Your task to perform on an android device: Play the last video I watched on Youtube Image 0: 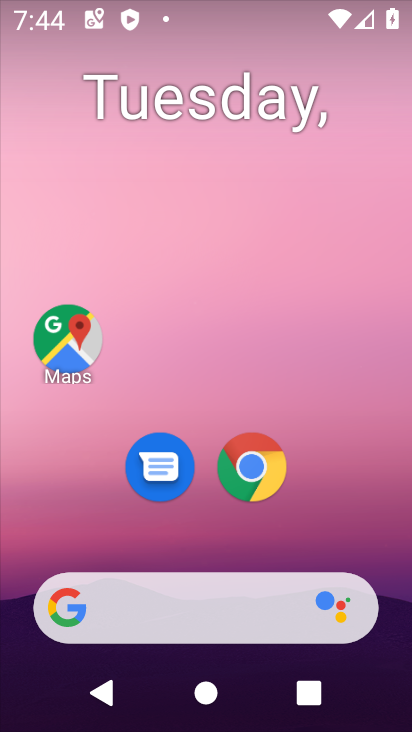
Step 0: drag from (395, 561) to (337, 217)
Your task to perform on an android device: Play the last video I watched on Youtube Image 1: 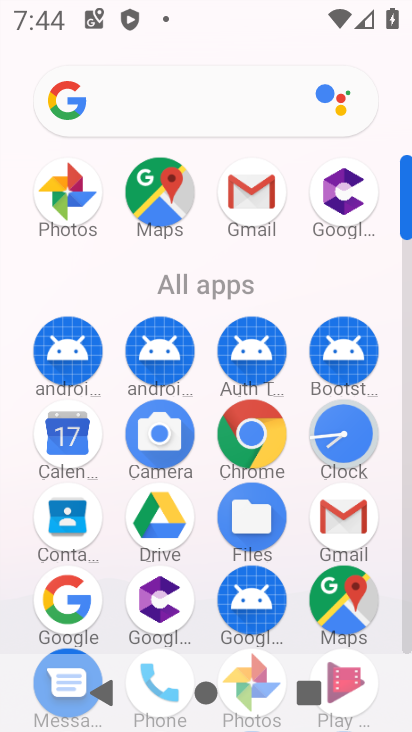
Step 1: click (405, 632)
Your task to perform on an android device: Play the last video I watched on Youtube Image 2: 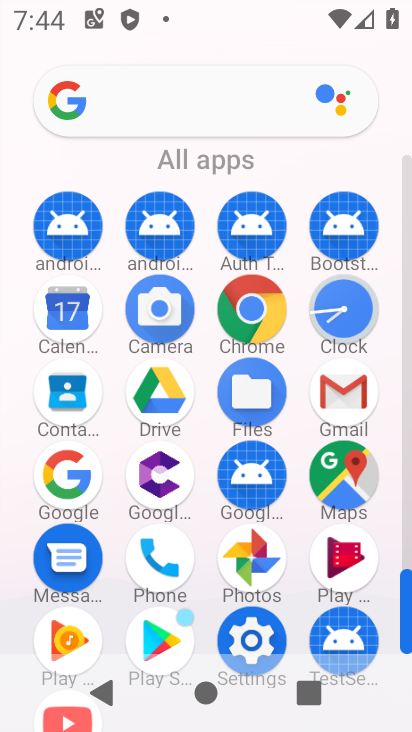
Step 2: drag from (391, 541) to (376, 351)
Your task to perform on an android device: Play the last video I watched on Youtube Image 3: 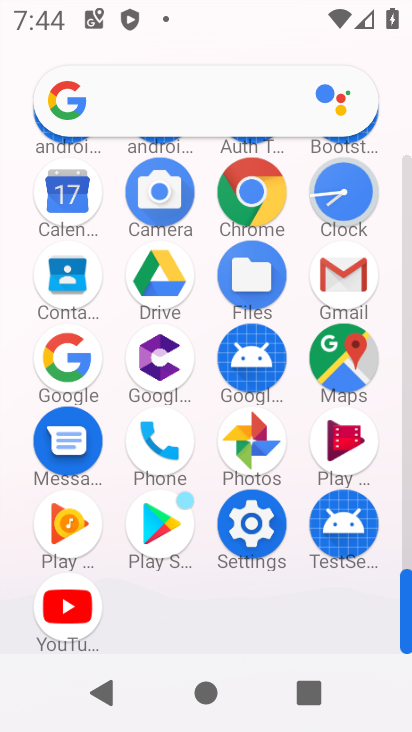
Step 3: click (88, 602)
Your task to perform on an android device: Play the last video I watched on Youtube Image 4: 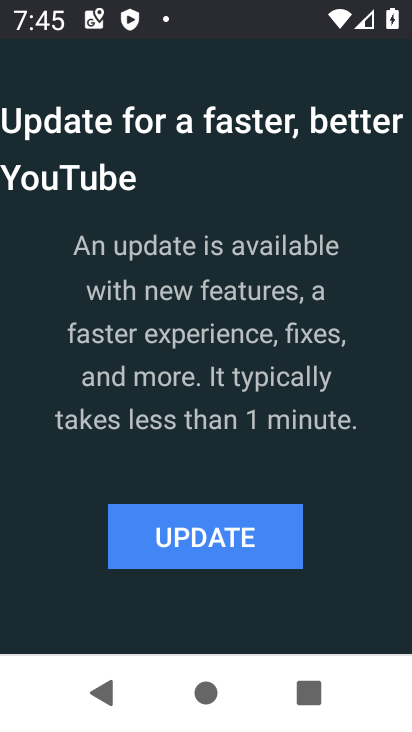
Step 4: press back button
Your task to perform on an android device: Play the last video I watched on Youtube Image 5: 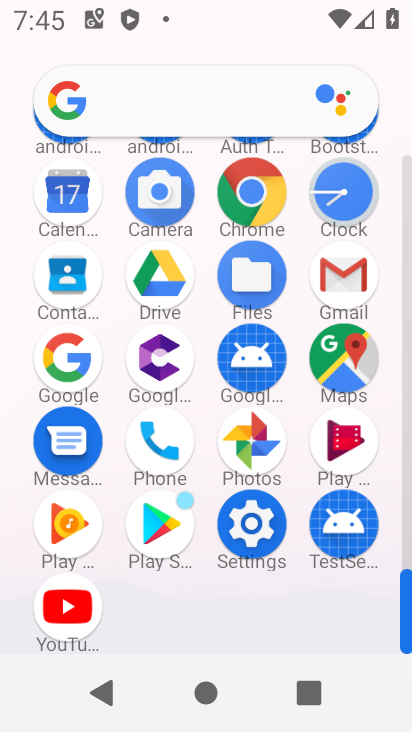
Step 5: click (84, 609)
Your task to perform on an android device: Play the last video I watched on Youtube Image 6: 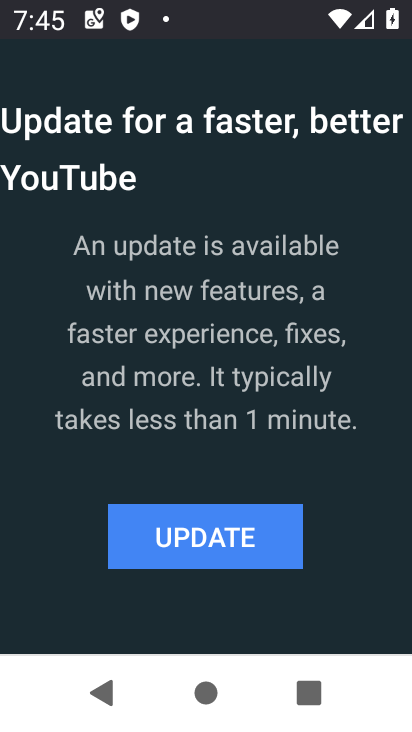
Step 6: click (239, 533)
Your task to perform on an android device: Play the last video I watched on Youtube Image 7: 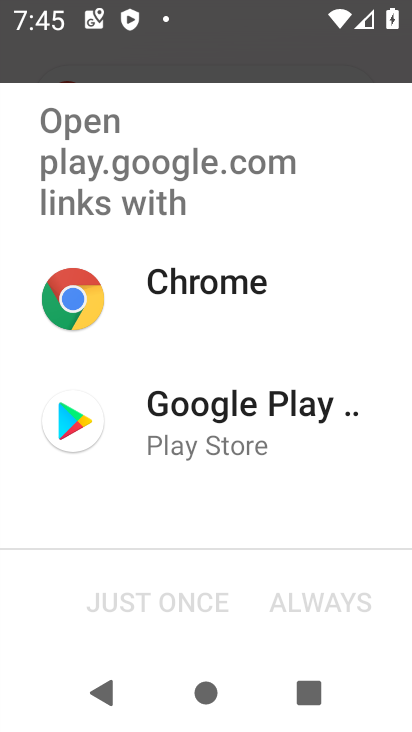
Step 7: click (251, 443)
Your task to perform on an android device: Play the last video I watched on Youtube Image 8: 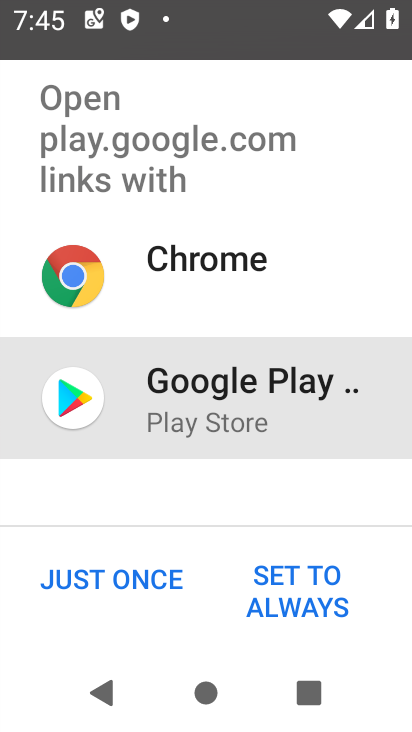
Step 8: click (141, 567)
Your task to perform on an android device: Play the last video I watched on Youtube Image 9: 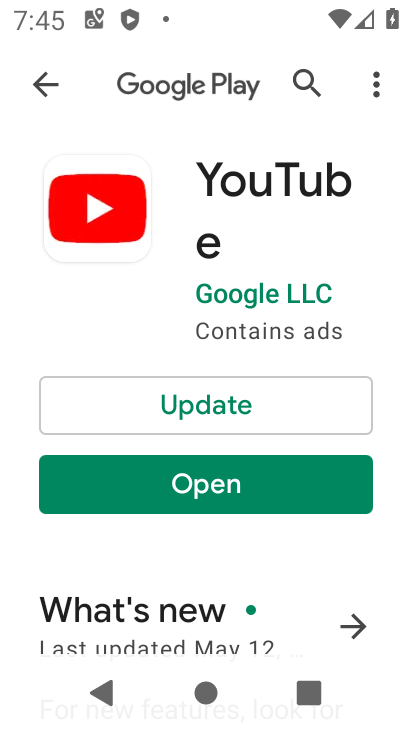
Step 9: click (249, 401)
Your task to perform on an android device: Play the last video I watched on Youtube Image 10: 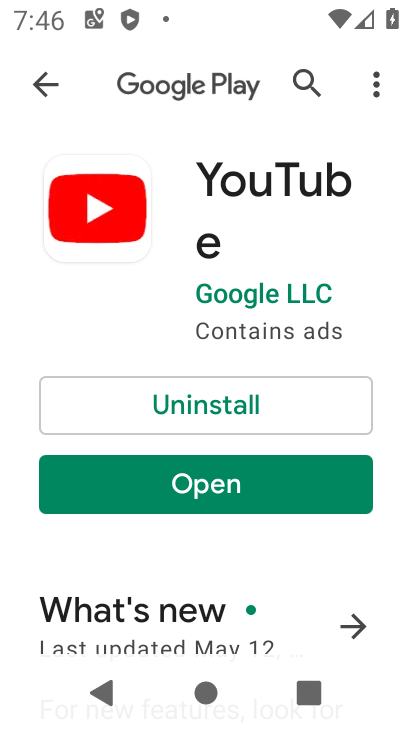
Step 10: click (274, 481)
Your task to perform on an android device: Play the last video I watched on Youtube Image 11: 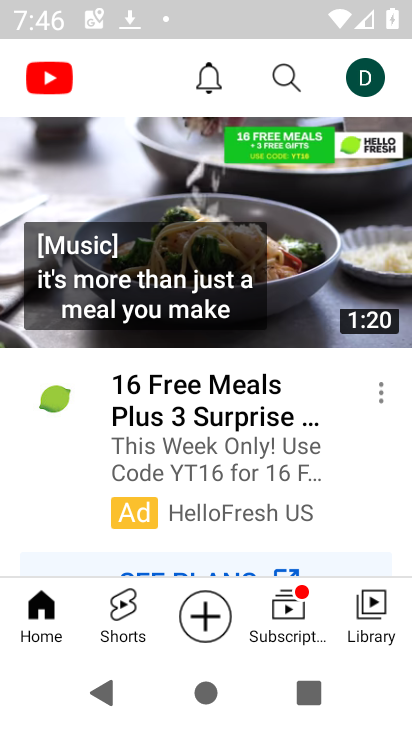
Step 11: click (372, 610)
Your task to perform on an android device: Play the last video I watched on Youtube Image 12: 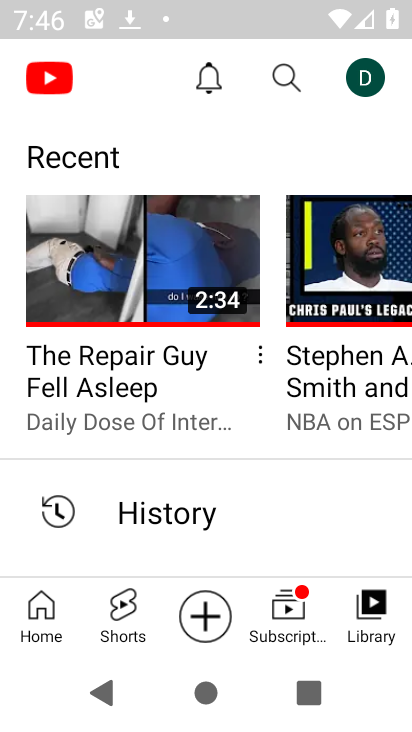
Step 12: click (172, 273)
Your task to perform on an android device: Play the last video I watched on Youtube Image 13: 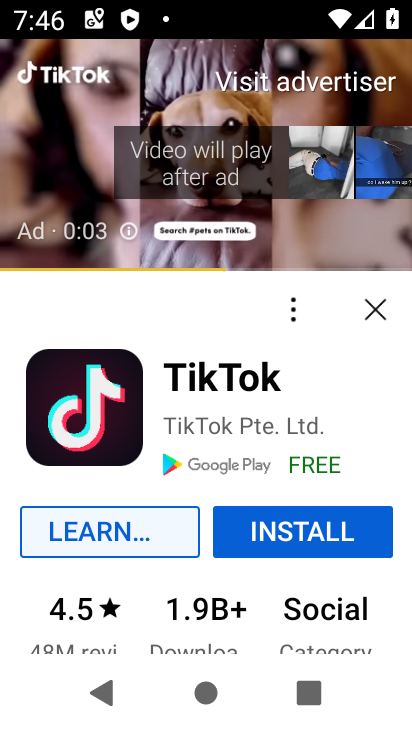
Step 13: task complete